Your task to perform on an android device: Go to notification settings Image 0: 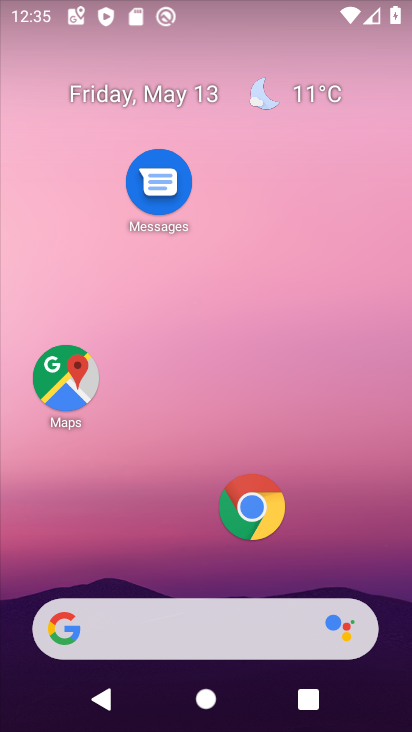
Step 0: drag from (202, 576) to (125, 21)
Your task to perform on an android device: Go to notification settings Image 1: 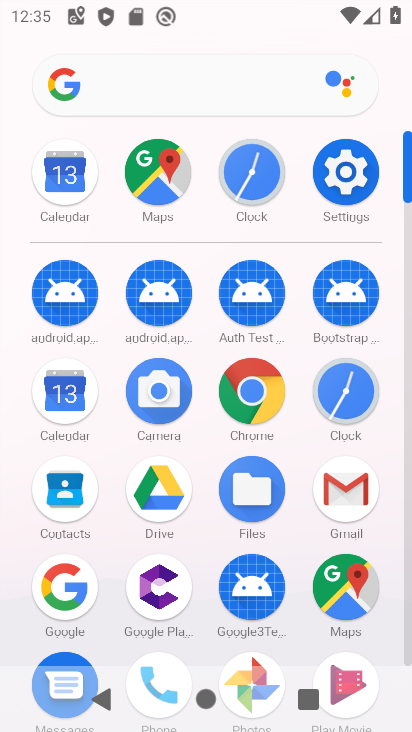
Step 1: click (336, 142)
Your task to perform on an android device: Go to notification settings Image 2: 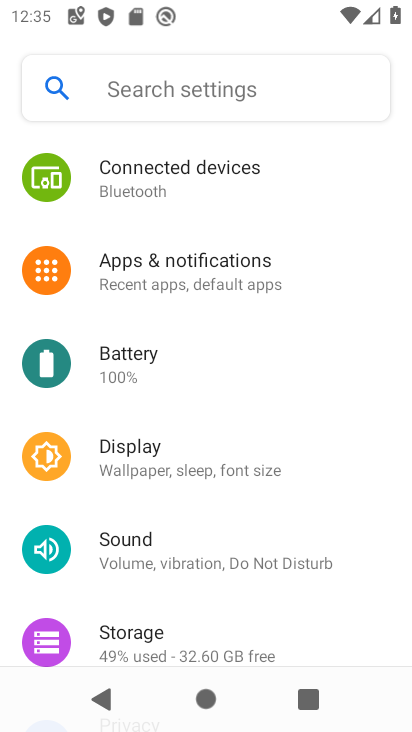
Step 2: click (183, 277)
Your task to perform on an android device: Go to notification settings Image 3: 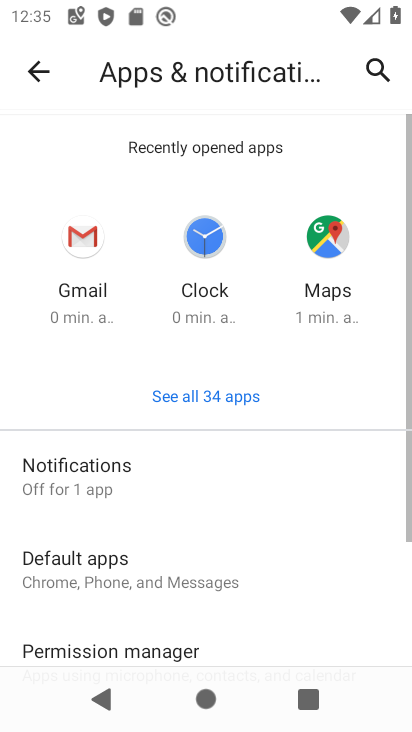
Step 3: click (116, 462)
Your task to perform on an android device: Go to notification settings Image 4: 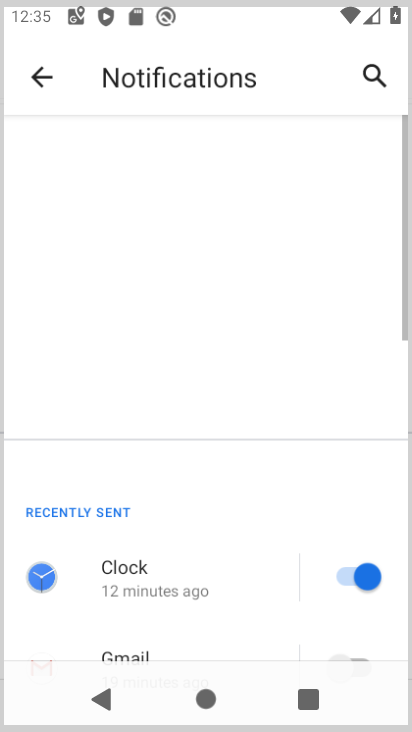
Step 4: task complete